Your task to perform on an android device: Open battery settings Image 0: 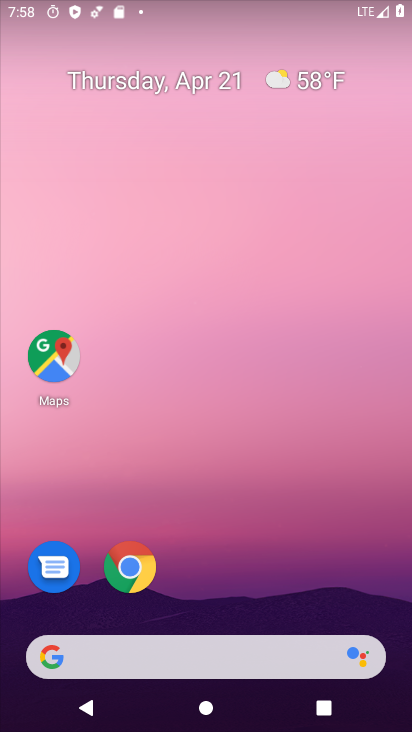
Step 0: drag from (238, 608) to (267, 49)
Your task to perform on an android device: Open battery settings Image 1: 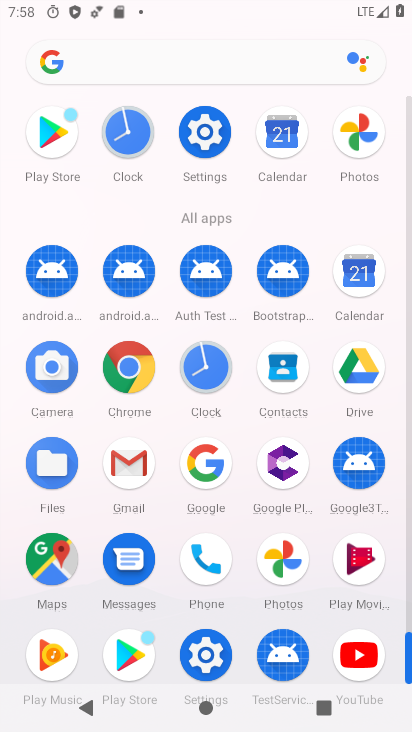
Step 1: click (205, 130)
Your task to perform on an android device: Open battery settings Image 2: 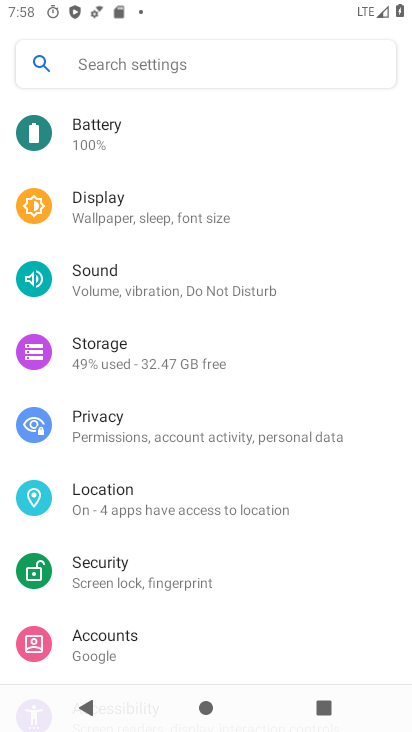
Step 2: click (98, 136)
Your task to perform on an android device: Open battery settings Image 3: 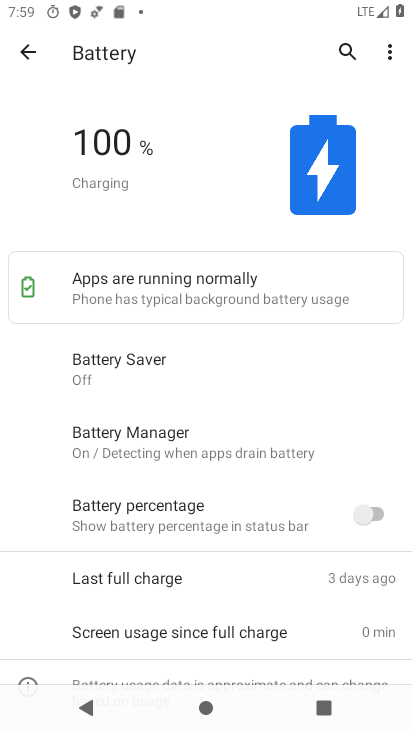
Step 3: task complete